Your task to perform on an android device: set an alarm Image 0: 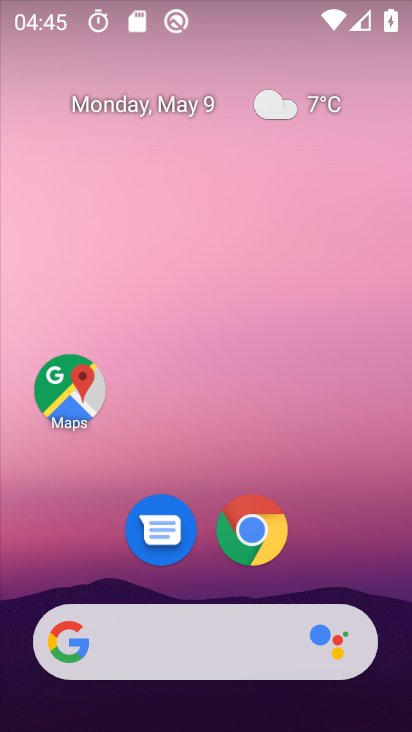
Step 0: drag from (179, 565) to (269, 80)
Your task to perform on an android device: set an alarm Image 1: 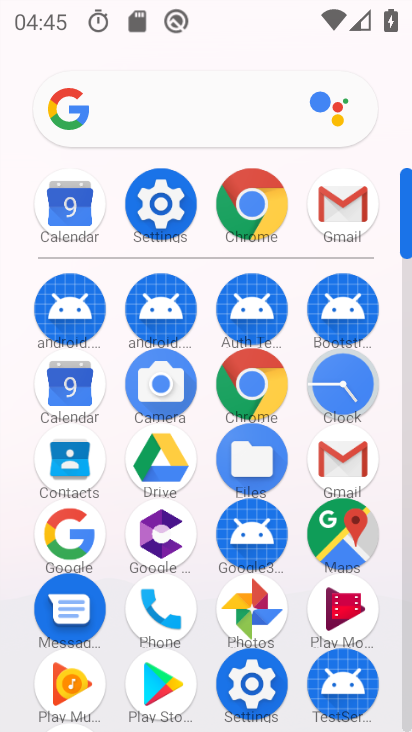
Step 1: click (336, 382)
Your task to perform on an android device: set an alarm Image 2: 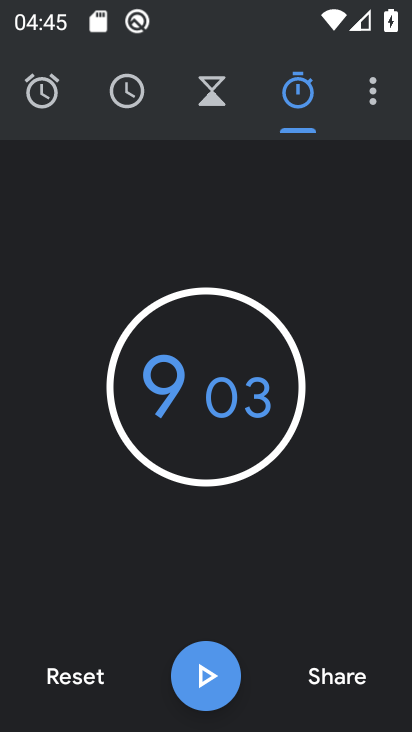
Step 2: click (49, 107)
Your task to perform on an android device: set an alarm Image 3: 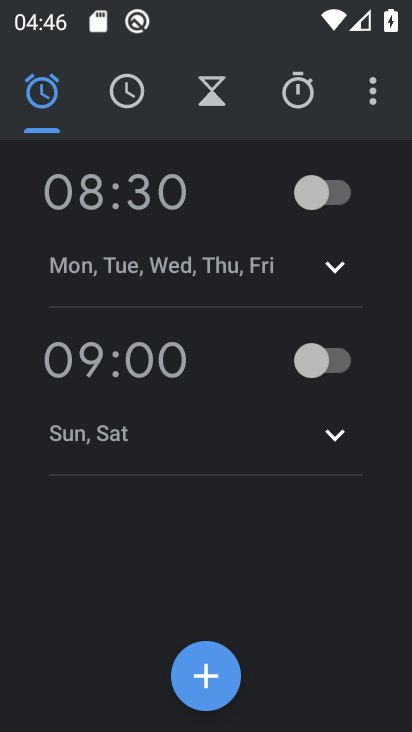
Step 3: click (333, 185)
Your task to perform on an android device: set an alarm Image 4: 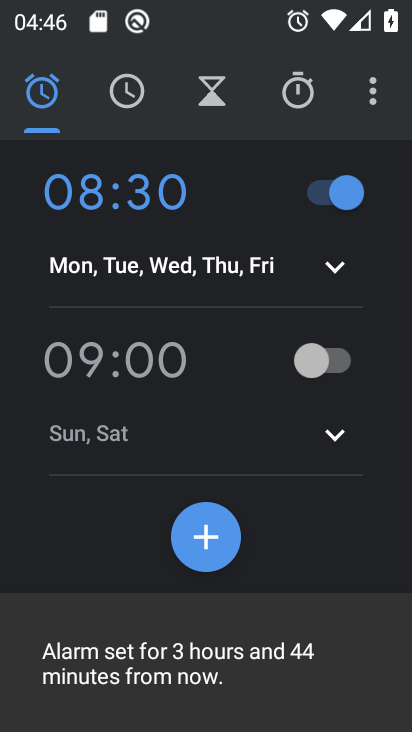
Step 4: task complete